Your task to perform on an android device: Search for vegetarian restaurants on Maps Image 0: 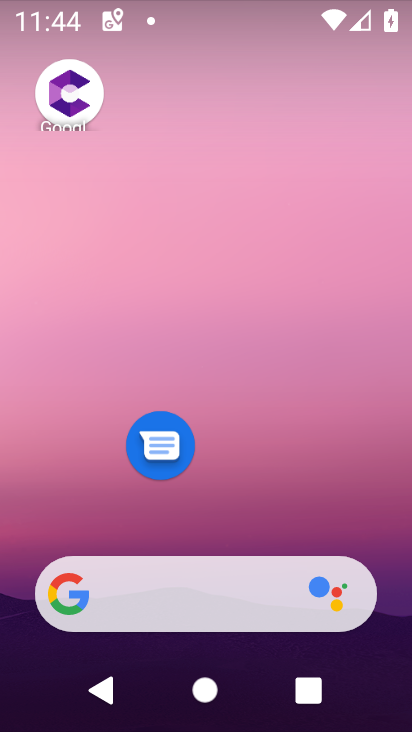
Step 0: drag from (214, 517) to (217, 115)
Your task to perform on an android device: Search for vegetarian restaurants on Maps Image 1: 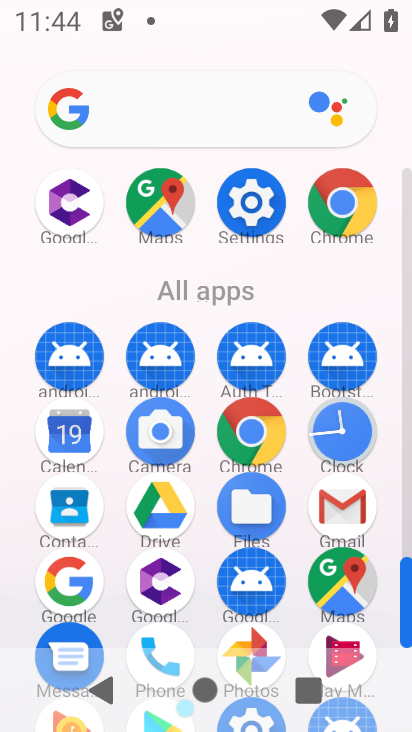
Step 1: click (338, 585)
Your task to perform on an android device: Search for vegetarian restaurants on Maps Image 2: 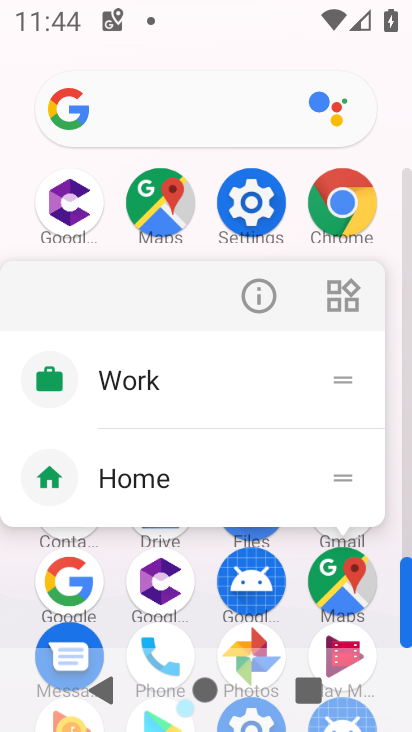
Step 2: click (328, 568)
Your task to perform on an android device: Search for vegetarian restaurants on Maps Image 3: 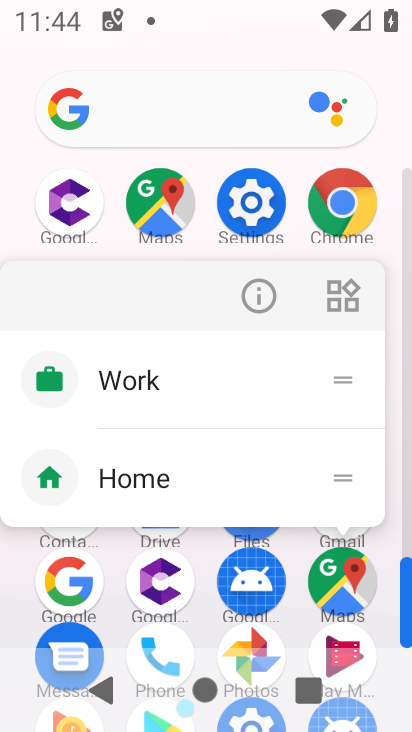
Step 3: click (337, 564)
Your task to perform on an android device: Search for vegetarian restaurants on Maps Image 4: 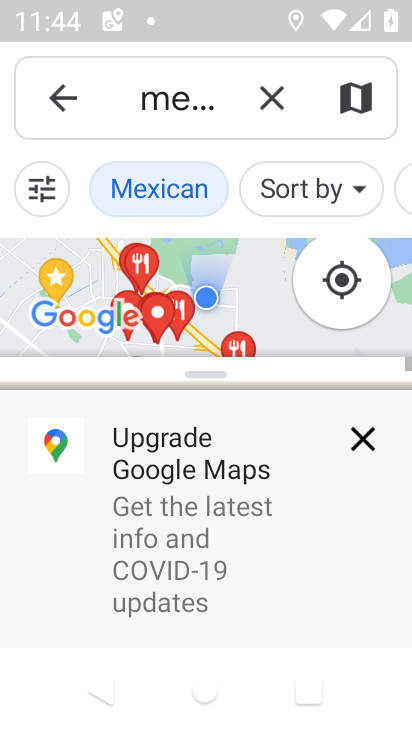
Step 4: click (275, 93)
Your task to perform on an android device: Search for vegetarian restaurants on Maps Image 5: 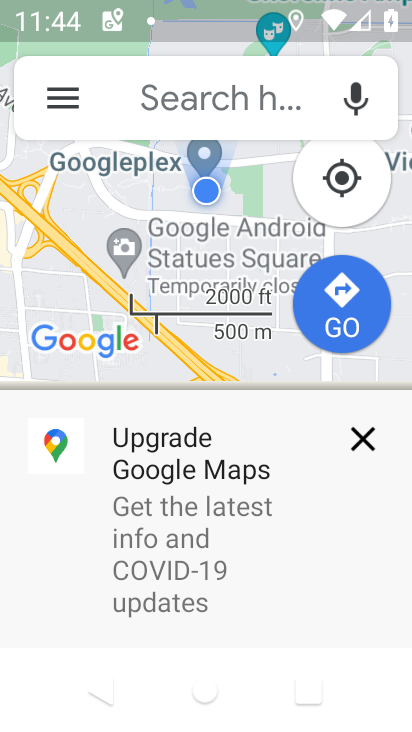
Step 5: click (138, 97)
Your task to perform on an android device: Search for vegetarian restaurants on Maps Image 6: 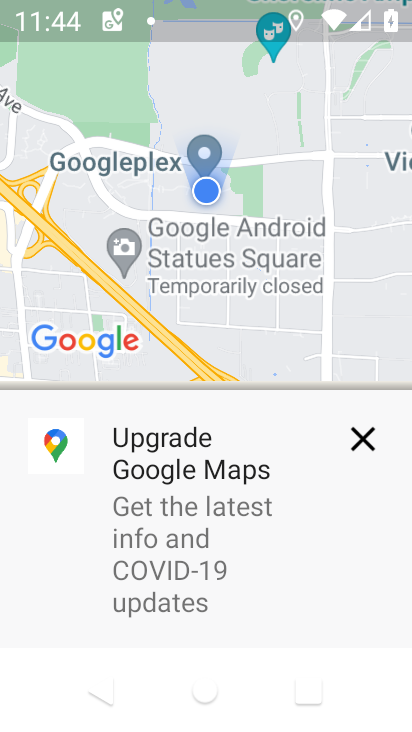
Step 6: click (361, 438)
Your task to perform on an android device: Search for vegetarian restaurants on Maps Image 7: 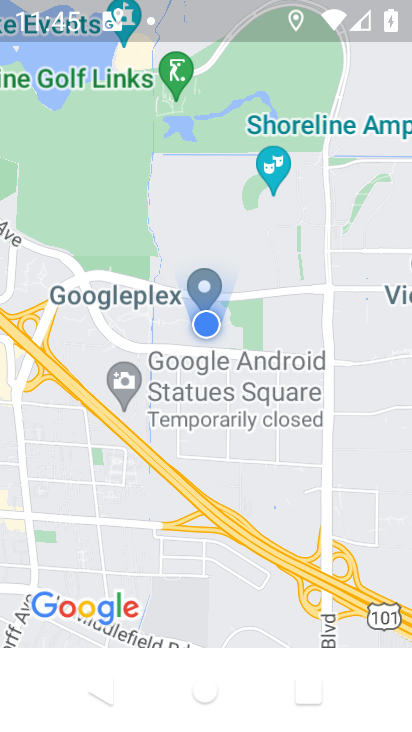
Step 7: click (105, 692)
Your task to perform on an android device: Search for vegetarian restaurants on Maps Image 8: 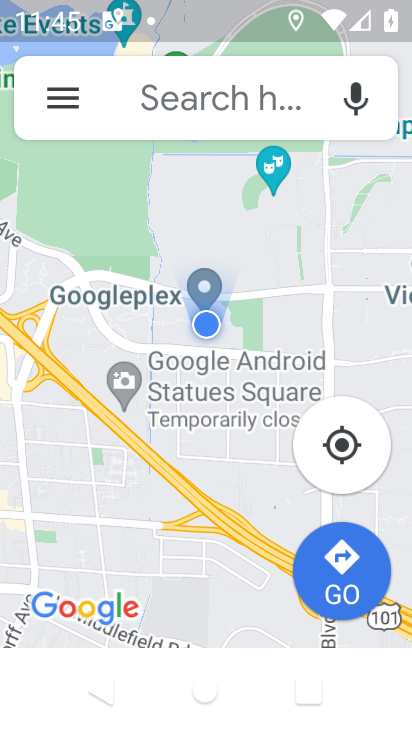
Step 8: click (215, 81)
Your task to perform on an android device: Search for vegetarian restaurants on Maps Image 9: 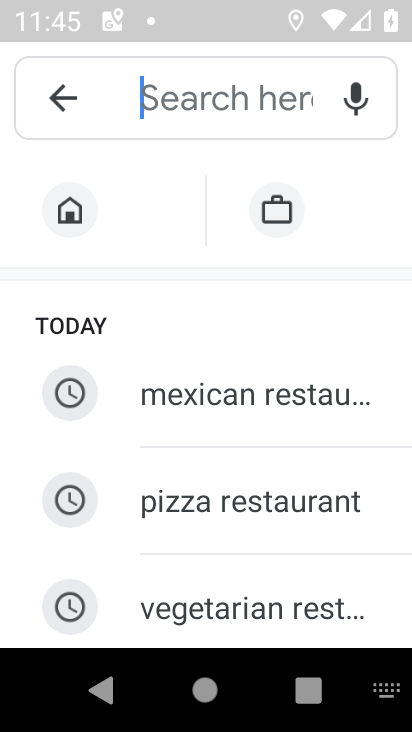
Step 9: type "vegetarian restaurants"
Your task to perform on an android device: Search for vegetarian restaurants on Maps Image 10: 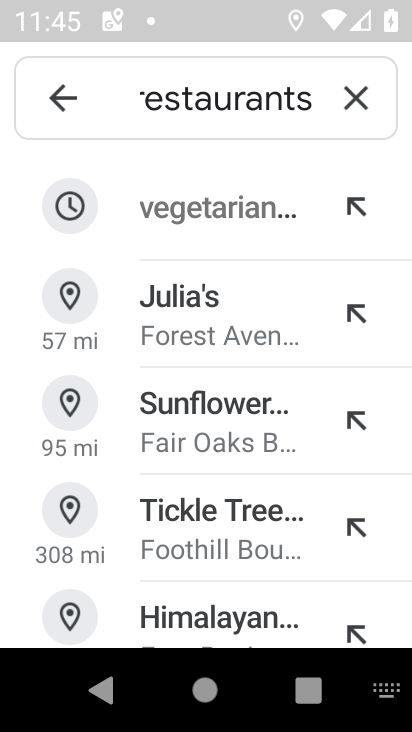
Step 10: click (204, 208)
Your task to perform on an android device: Search for vegetarian restaurants on Maps Image 11: 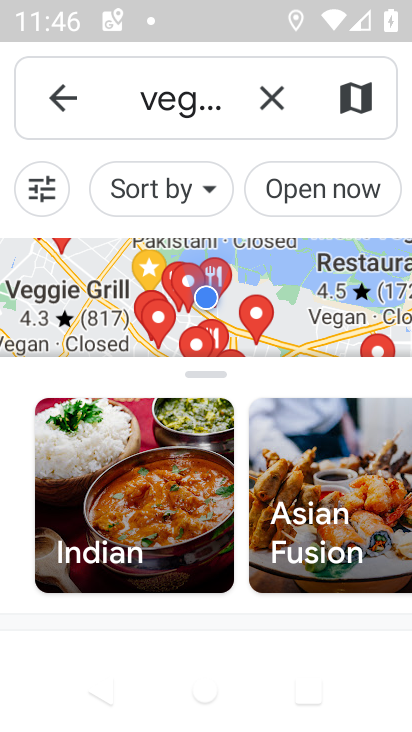
Step 11: task complete